Your task to perform on an android device: turn on the 24-hour format for clock Image 0: 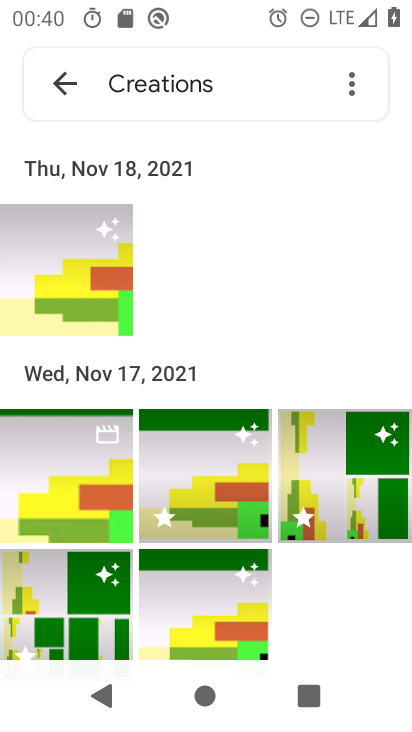
Step 0: press home button
Your task to perform on an android device: turn on the 24-hour format for clock Image 1: 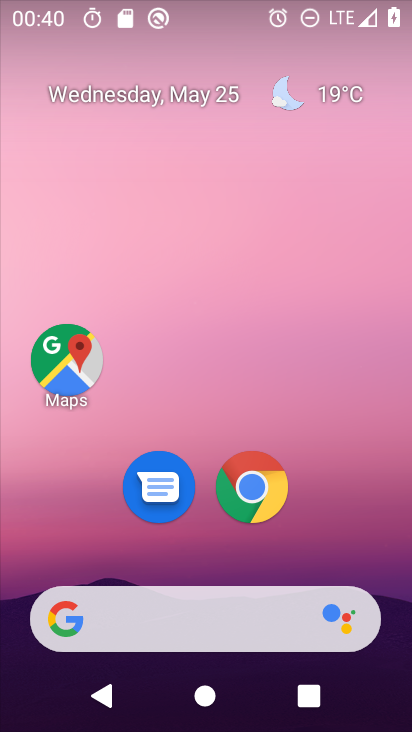
Step 1: drag from (326, 544) to (353, 18)
Your task to perform on an android device: turn on the 24-hour format for clock Image 2: 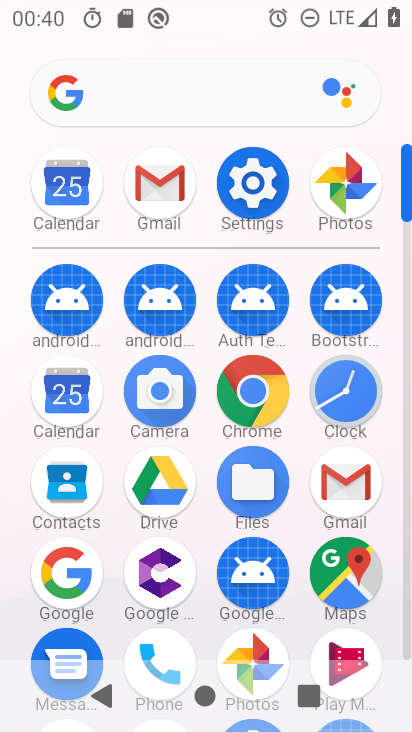
Step 2: click (341, 396)
Your task to perform on an android device: turn on the 24-hour format for clock Image 3: 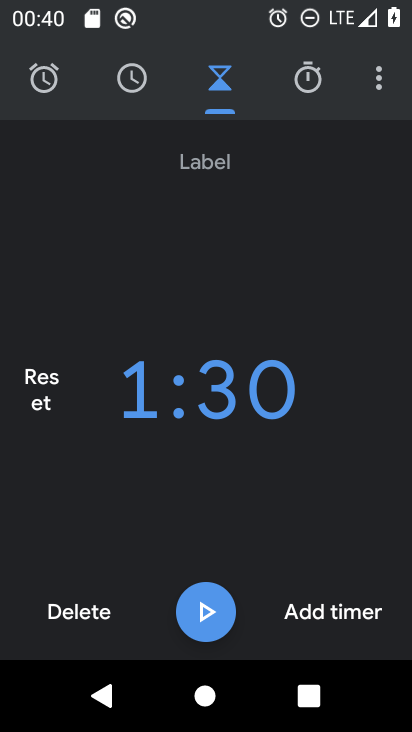
Step 3: click (381, 90)
Your task to perform on an android device: turn on the 24-hour format for clock Image 4: 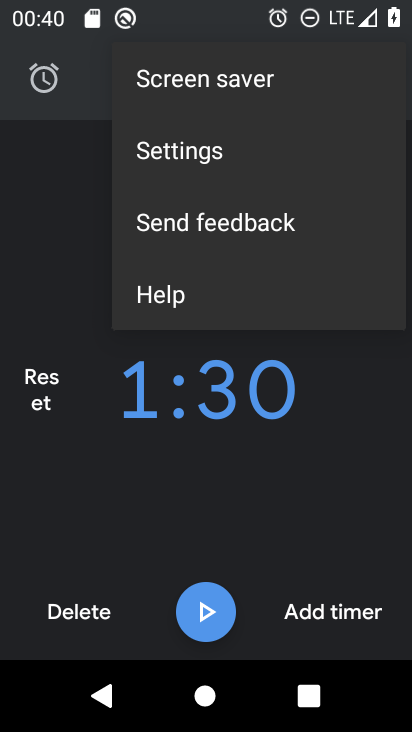
Step 4: click (160, 155)
Your task to perform on an android device: turn on the 24-hour format for clock Image 5: 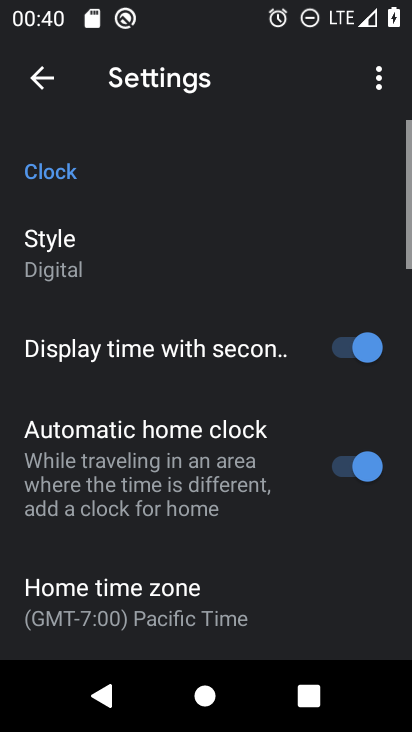
Step 5: drag from (190, 492) to (166, 96)
Your task to perform on an android device: turn on the 24-hour format for clock Image 6: 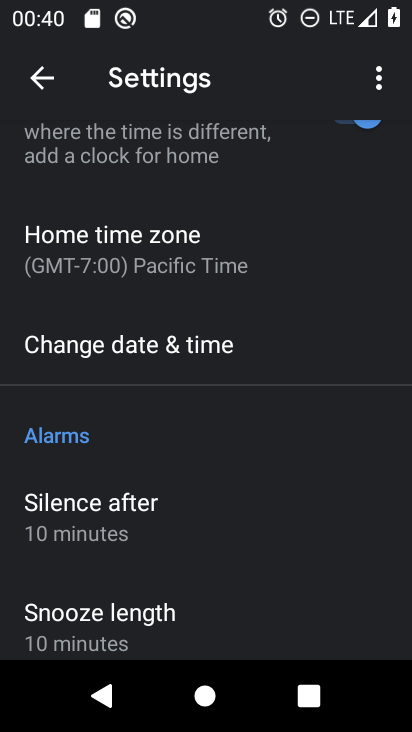
Step 6: click (115, 349)
Your task to perform on an android device: turn on the 24-hour format for clock Image 7: 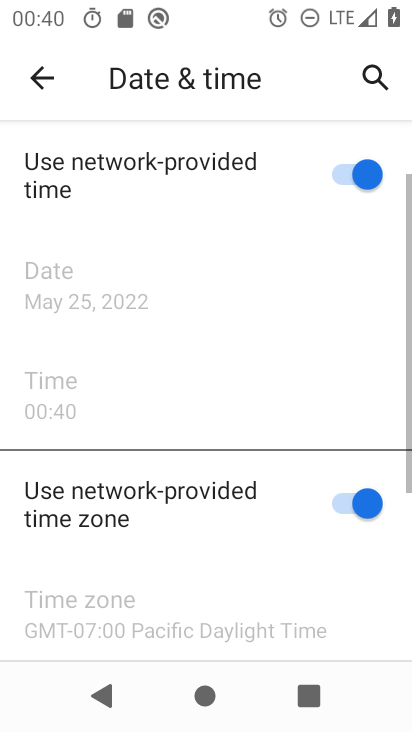
Step 7: task complete